Your task to perform on an android device: all mails in gmail Image 0: 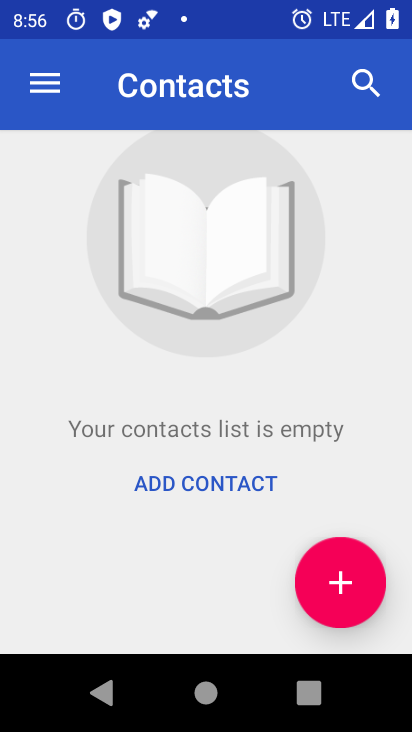
Step 0: drag from (218, 557) to (309, 248)
Your task to perform on an android device: all mails in gmail Image 1: 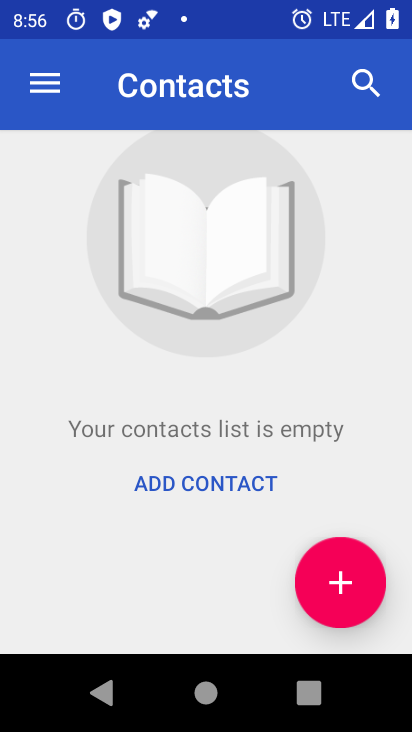
Step 1: press home button
Your task to perform on an android device: all mails in gmail Image 2: 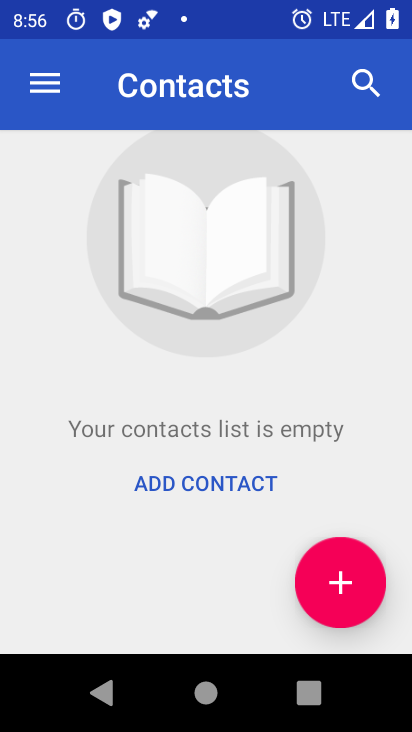
Step 2: press home button
Your task to perform on an android device: all mails in gmail Image 3: 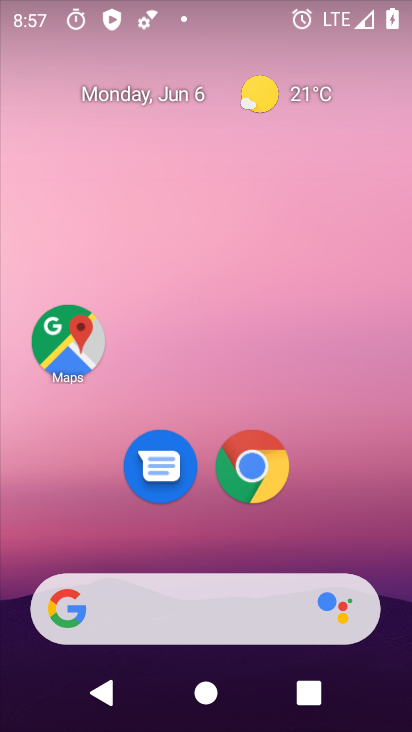
Step 3: drag from (184, 528) to (241, 165)
Your task to perform on an android device: all mails in gmail Image 4: 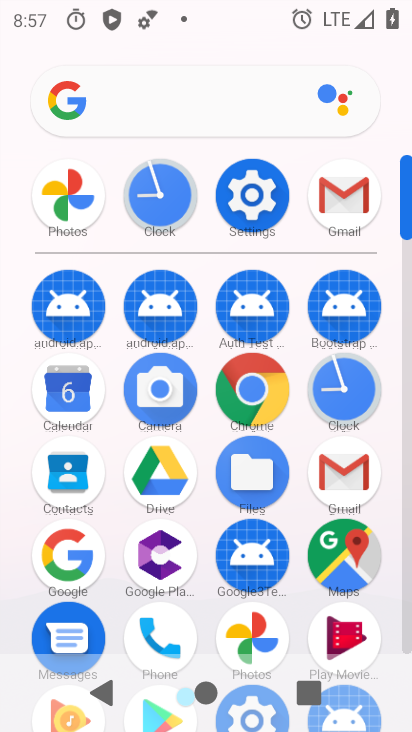
Step 4: click (373, 453)
Your task to perform on an android device: all mails in gmail Image 5: 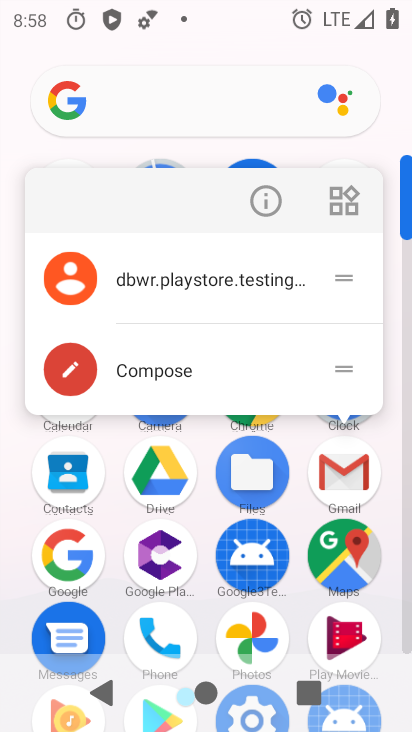
Step 5: click (272, 223)
Your task to perform on an android device: all mails in gmail Image 6: 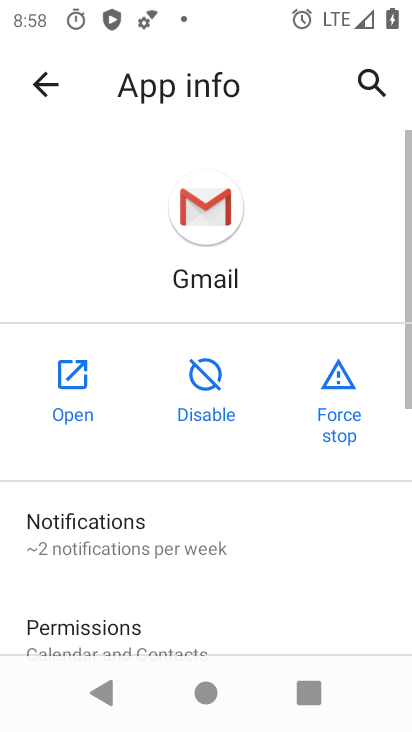
Step 6: click (69, 373)
Your task to perform on an android device: all mails in gmail Image 7: 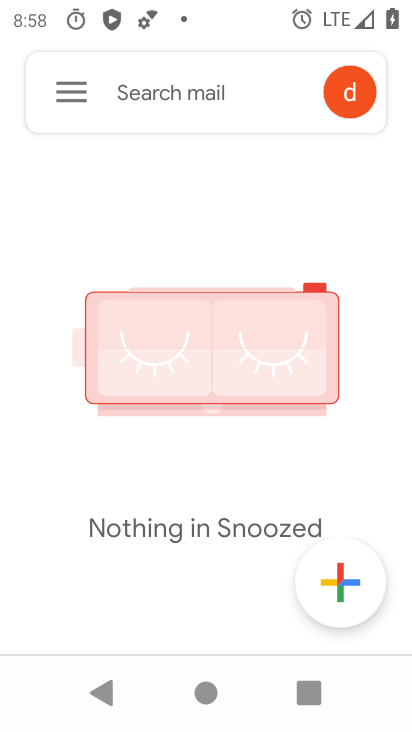
Step 7: click (79, 119)
Your task to perform on an android device: all mails in gmail Image 8: 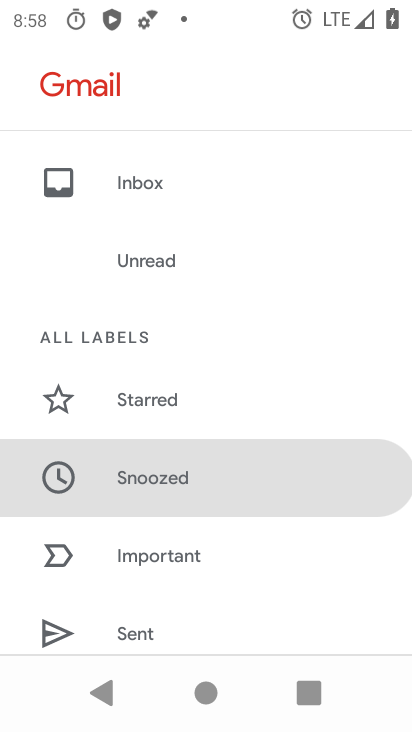
Step 8: drag from (156, 568) to (368, 4)
Your task to perform on an android device: all mails in gmail Image 9: 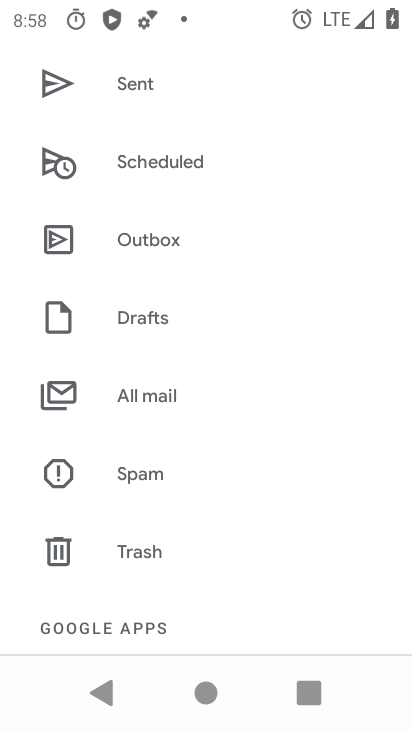
Step 9: click (187, 423)
Your task to perform on an android device: all mails in gmail Image 10: 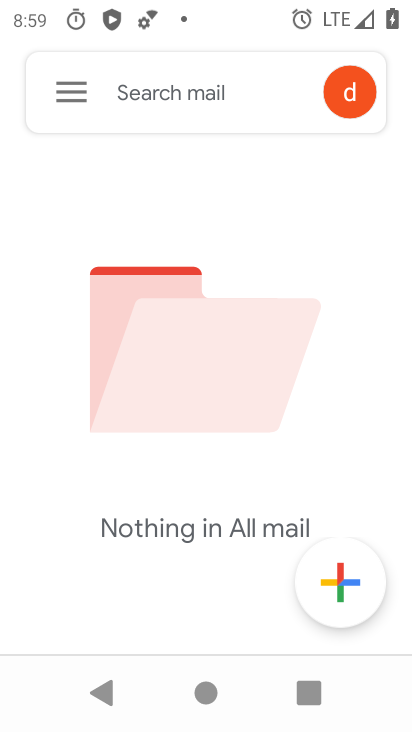
Step 10: task complete